Your task to perform on an android device: uninstall "NewsBreak: Local News & Alerts" Image 0: 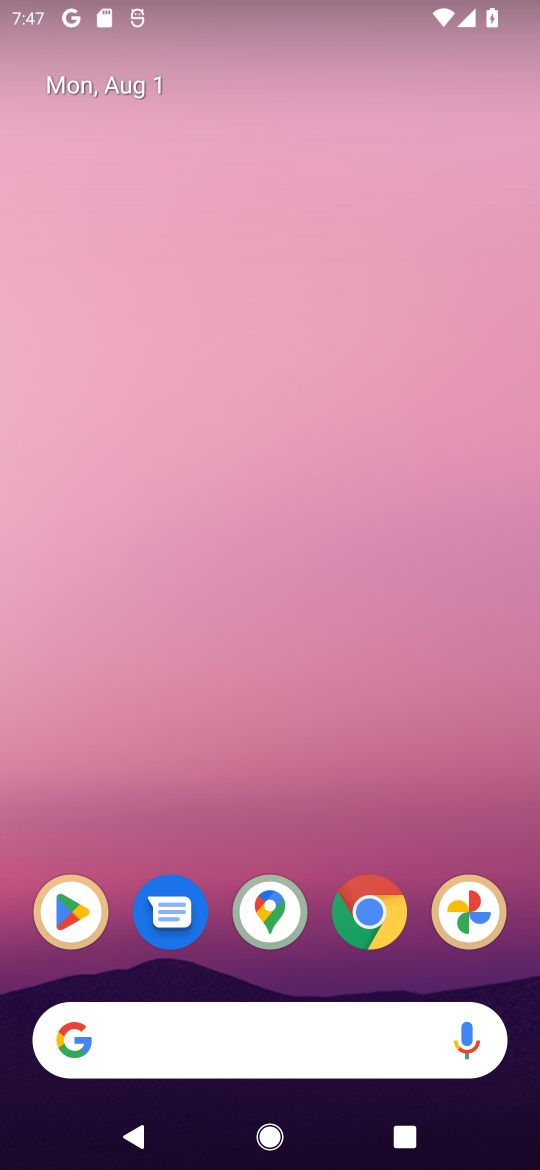
Step 0: drag from (305, 854) to (283, 23)
Your task to perform on an android device: uninstall "NewsBreak: Local News & Alerts" Image 1: 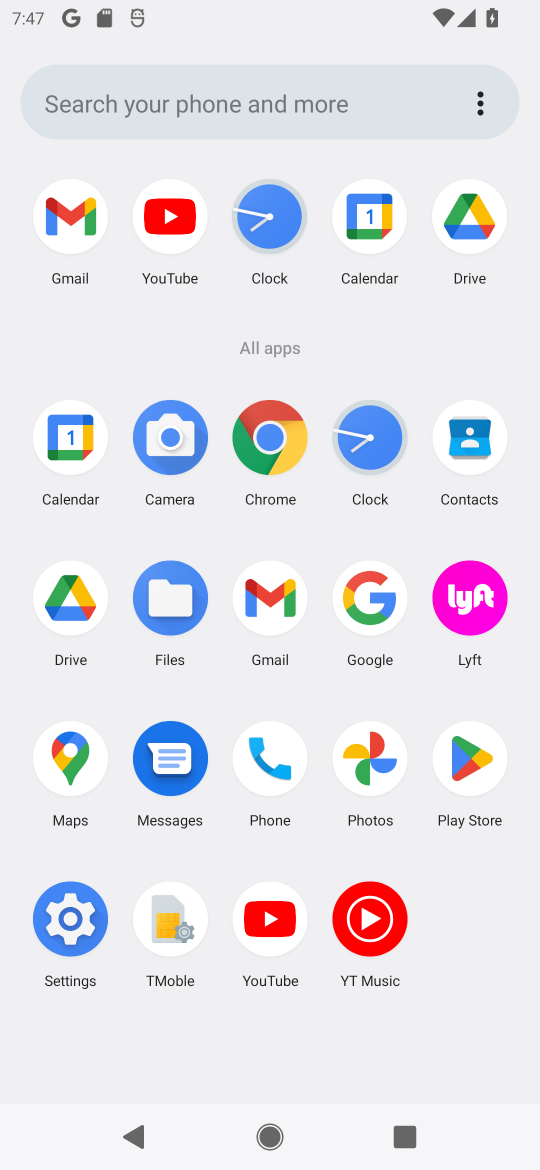
Step 1: click (456, 770)
Your task to perform on an android device: uninstall "NewsBreak: Local News & Alerts" Image 2: 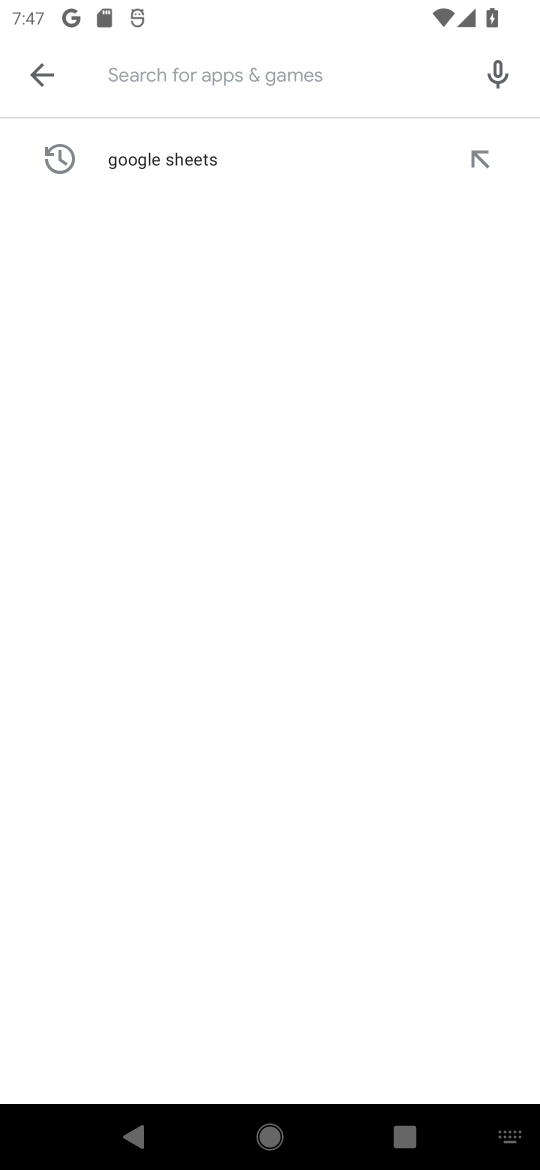
Step 2: type "NewsBreak: Local News & Alerts"
Your task to perform on an android device: uninstall "NewsBreak: Local News & Alerts" Image 3: 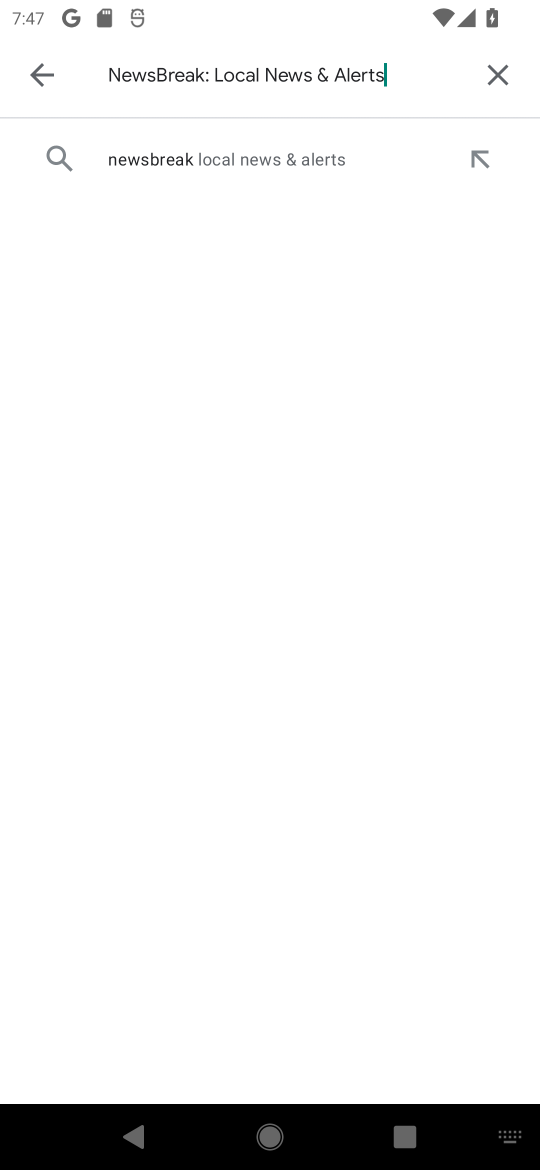
Step 3: click (254, 171)
Your task to perform on an android device: uninstall "NewsBreak: Local News & Alerts" Image 4: 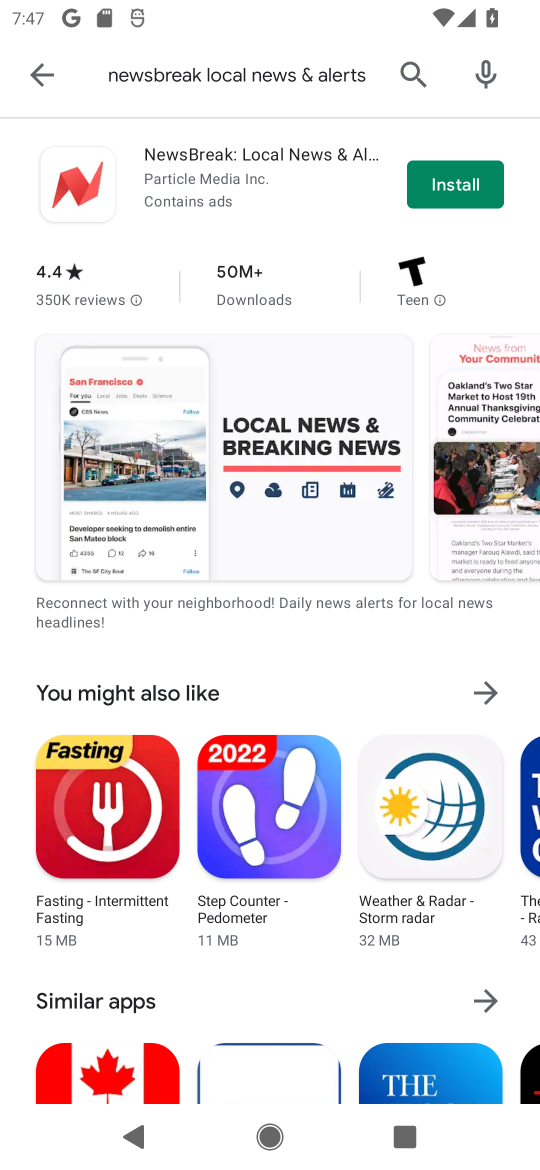
Step 4: task complete